Your task to perform on an android device: What's on my calendar tomorrow? Image 0: 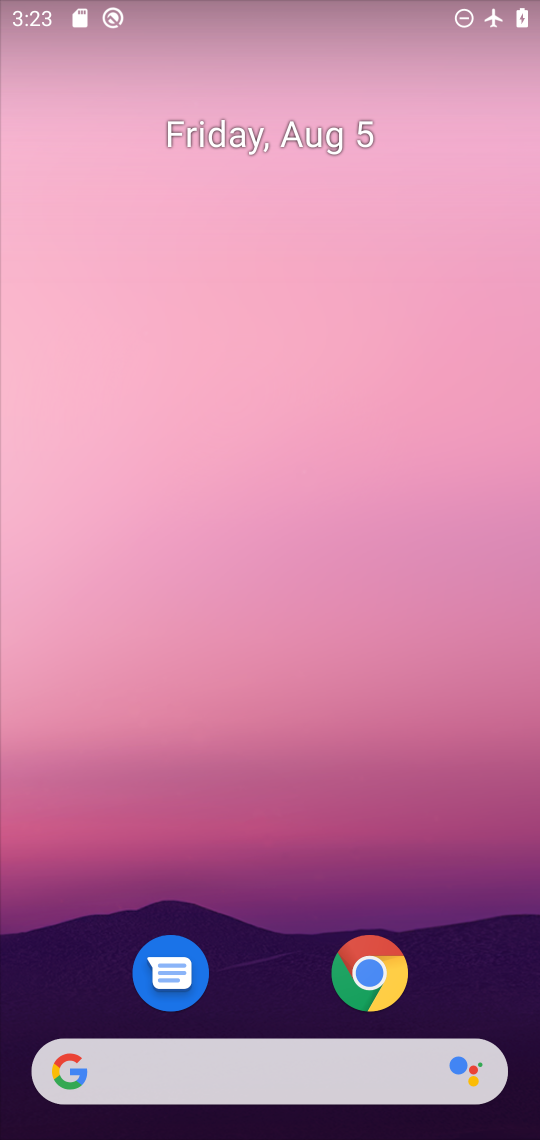
Step 0: drag from (291, 1005) to (207, 112)
Your task to perform on an android device: What's on my calendar tomorrow? Image 1: 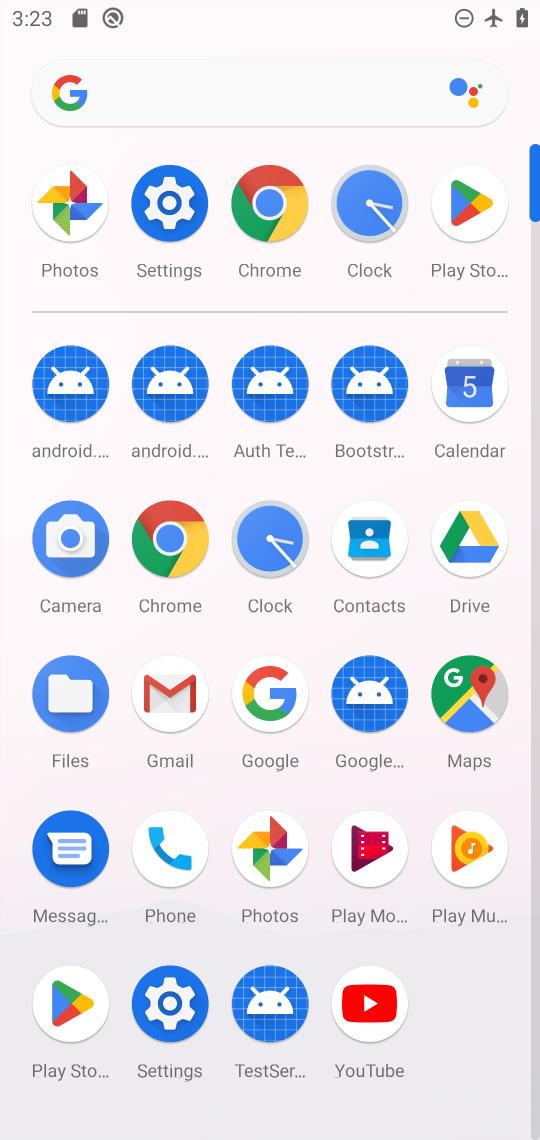
Step 1: click (447, 410)
Your task to perform on an android device: What's on my calendar tomorrow? Image 2: 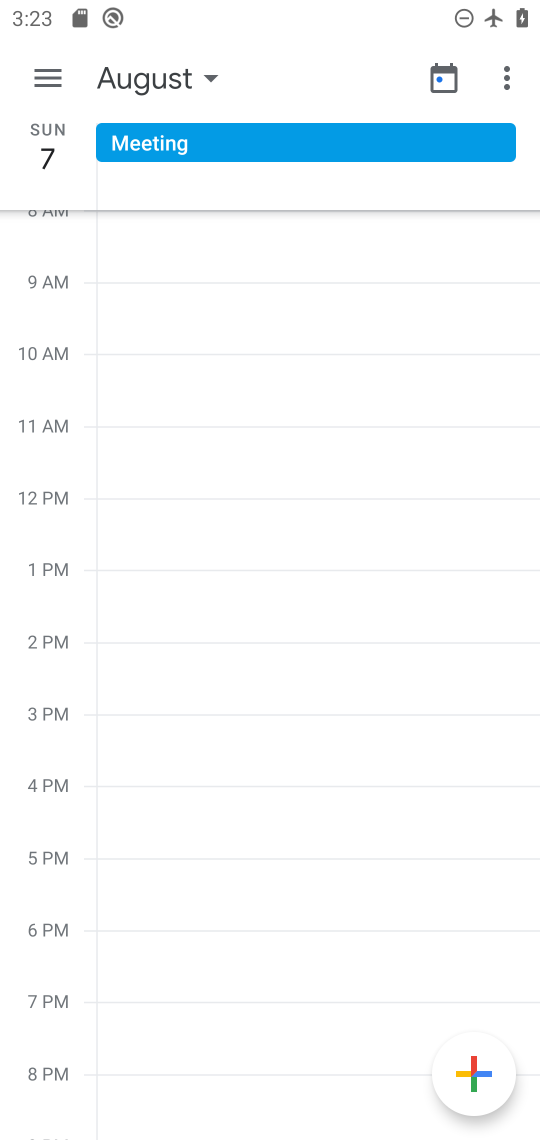
Step 2: click (439, 84)
Your task to perform on an android device: What's on my calendar tomorrow? Image 3: 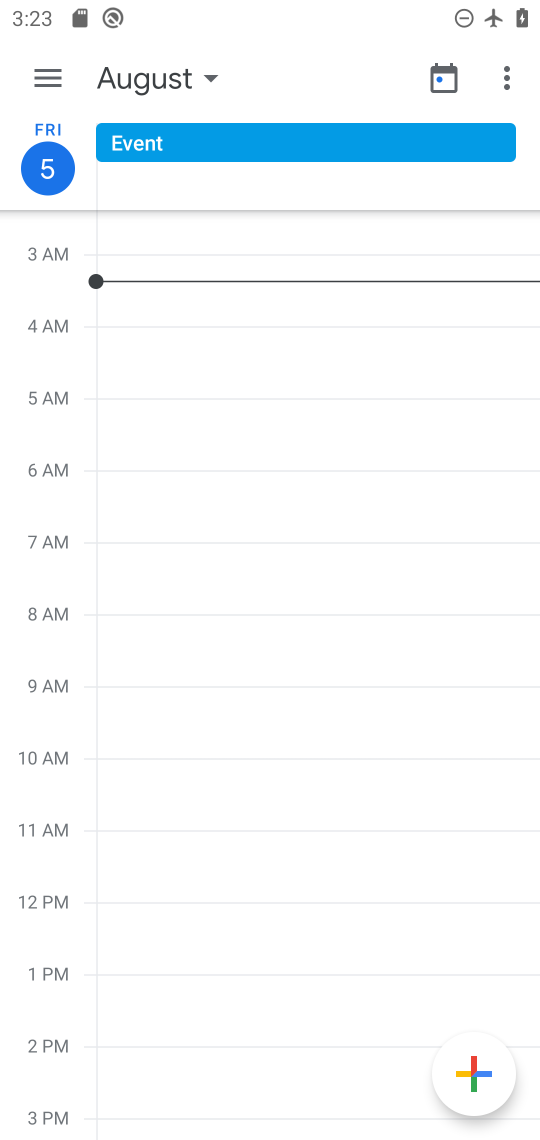
Step 3: click (24, 78)
Your task to perform on an android device: What's on my calendar tomorrow? Image 4: 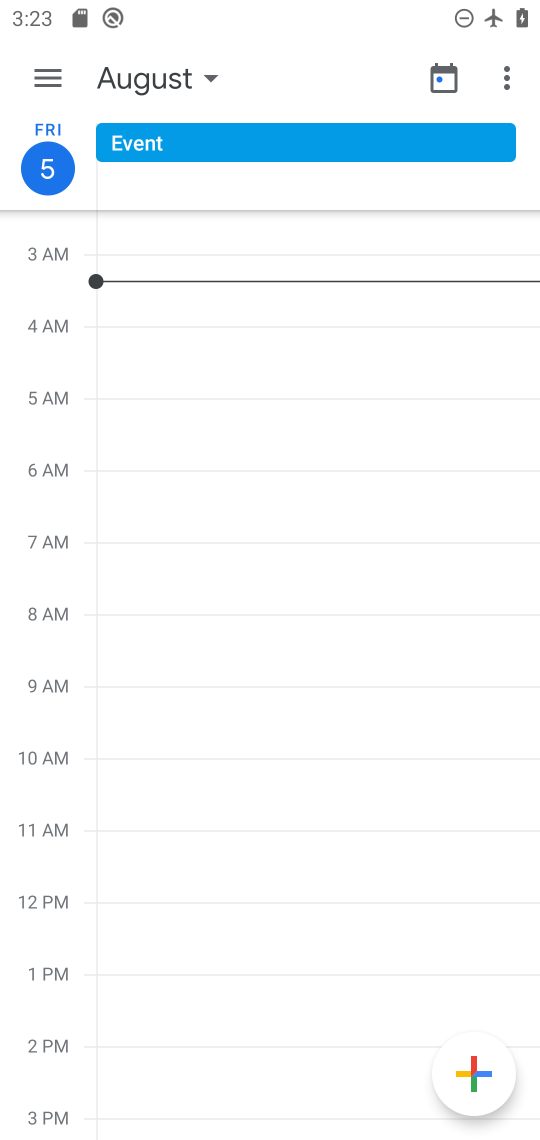
Step 4: click (24, 78)
Your task to perform on an android device: What's on my calendar tomorrow? Image 5: 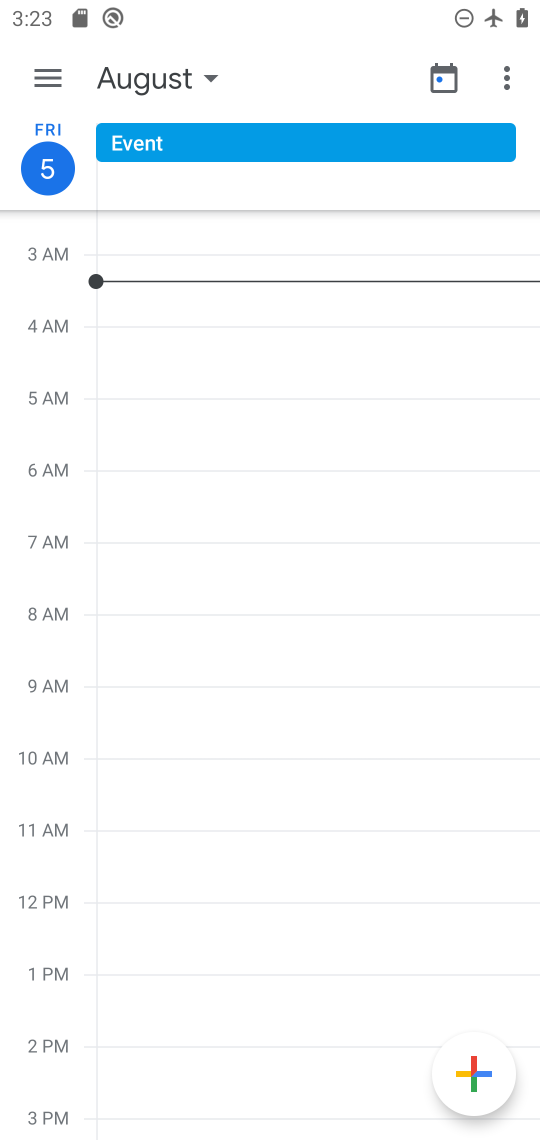
Step 5: click (40, 77)
Your task to perform on an android device: What's on my calendar tomorrow? Image 6: 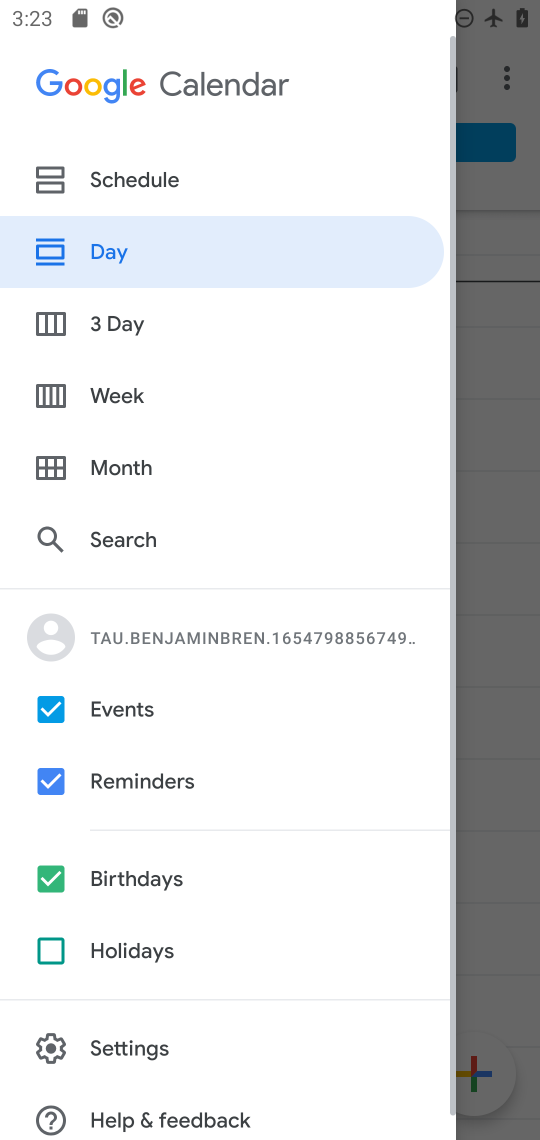
Step 6: click (132, 399)
Your task to perform on an android device: What's on my calendar tomorrow? Image 7: 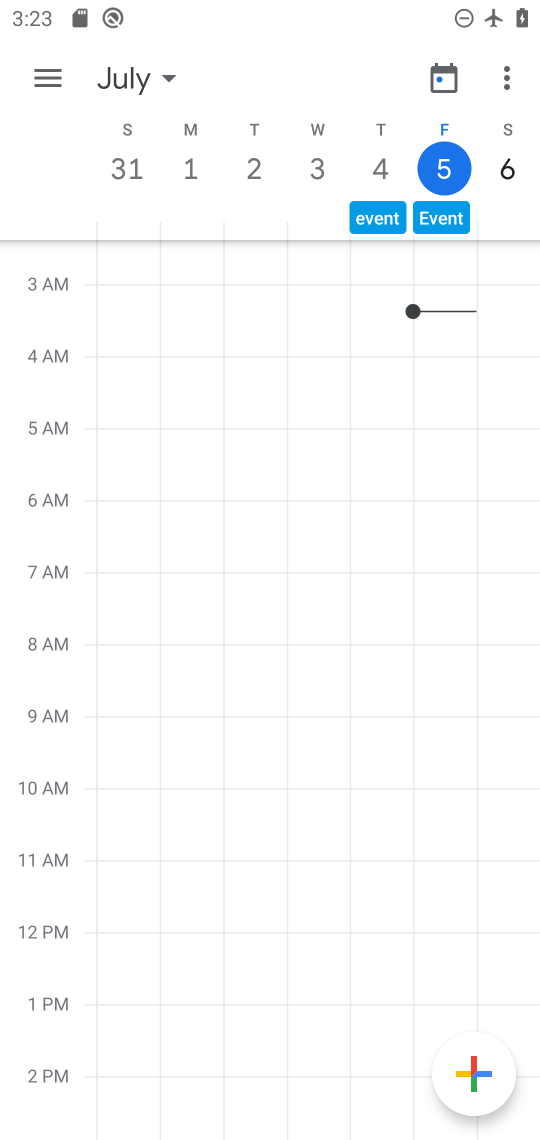
Step 7: click (496, 173)
Your task to perform on an android device: What's on my calendar tomorrow? Image 8: 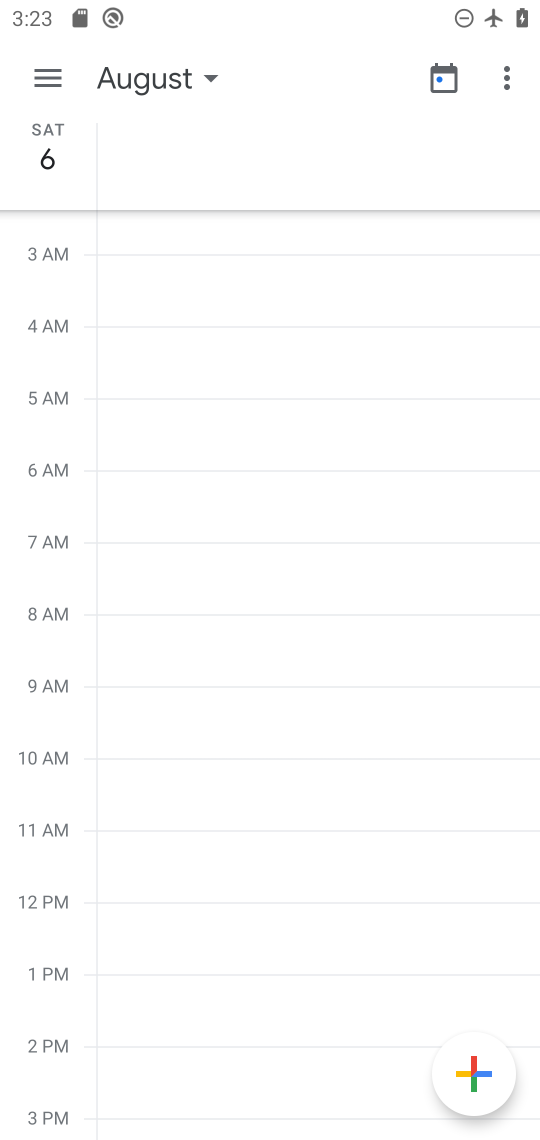
Step 8: task complete